Your task to perform on an android device: Go to accessibility settings Image 0: 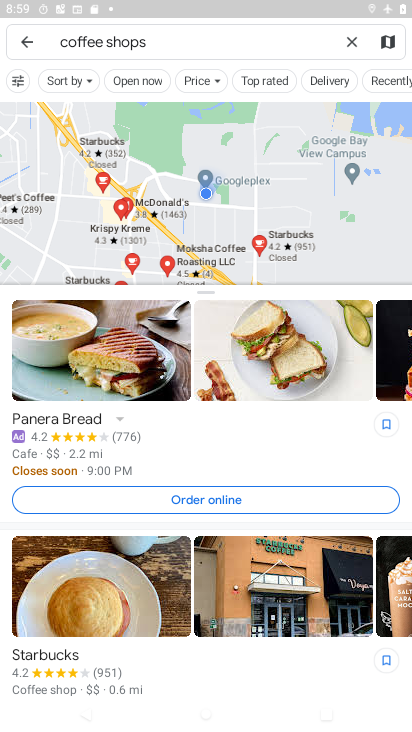
Step 0: press home button
Your task to perform on an android device: Go to accessibility settings Image 1: 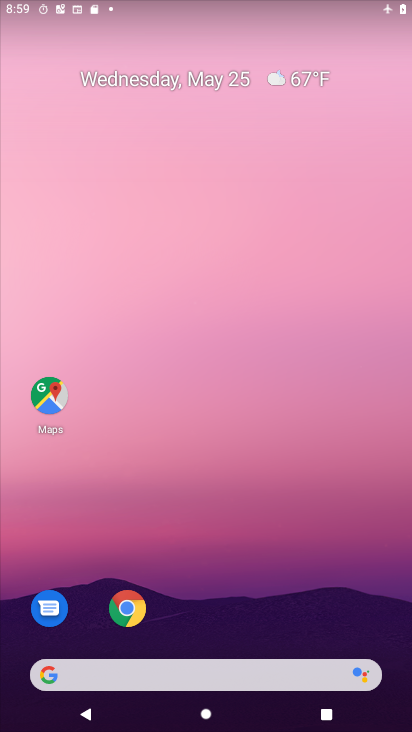
Step 1: drag from (234, 724) to (234, 92)
Your task to perform on an android device: Go to accessibility settings Image 2: 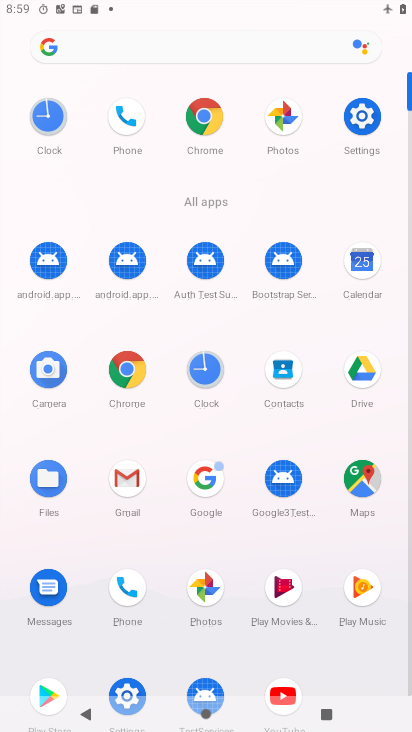
Step 2: click (360, 122)
Your task to perform on an android device: Go to accessibility settings Image 3: 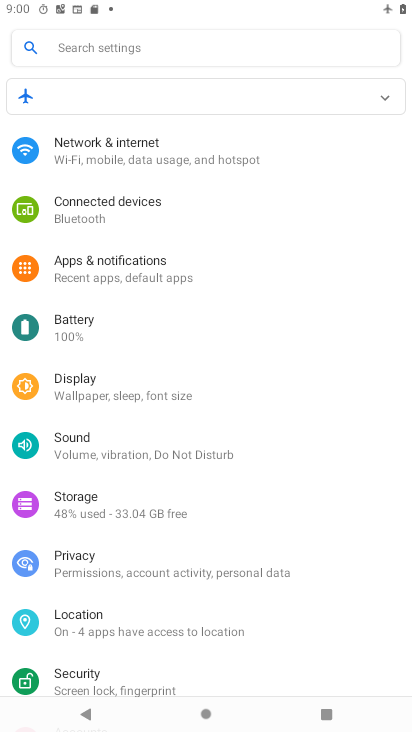
Step 3: drag from (164, 586) to (168, 253)
Your task to perform on an android device: Go to accessibility settings Image 4: 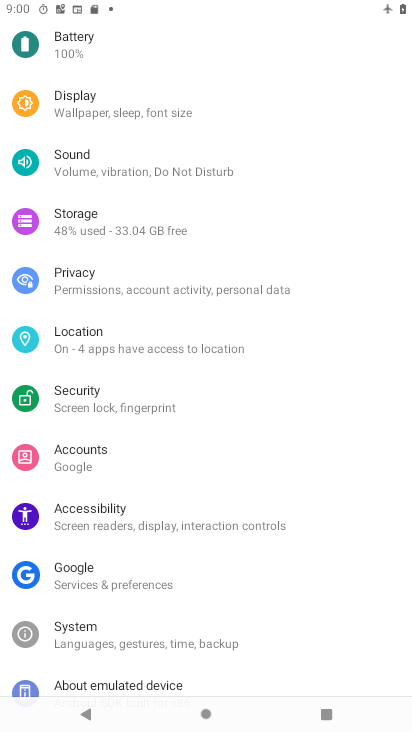
Step 4: drag from (147, 635) to (151, 261)
Your task to perform on an android device: Go to accessibility settings Image 5: 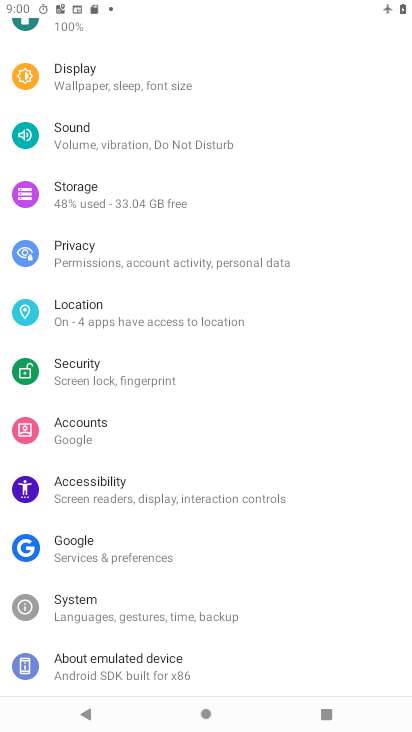
Step 5: click (73, 493)
Your task to perform on an android device: Go to accessibility settings Image 6: 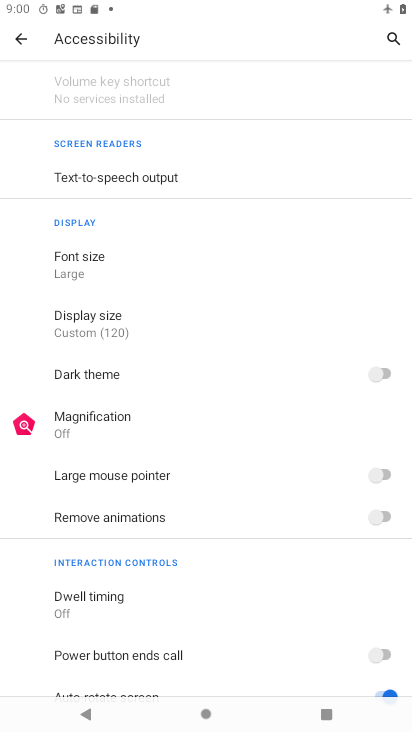
Step 6: task complete